Your task to perform on an android device: turn on sleep mode Image 0: 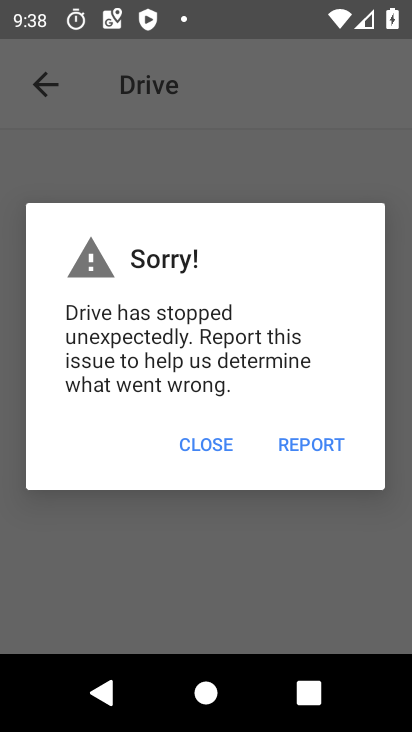
Step 0: press home button
Your task to perform on an android device: turn on sleep mode Image 1: 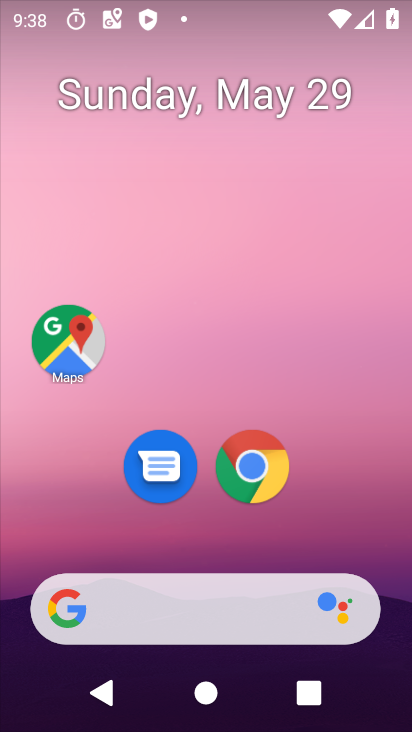
Step 1: drag from (187, 546) to (197, 178)
Your task to perform on an android device: turn on sleep mode Image 2: 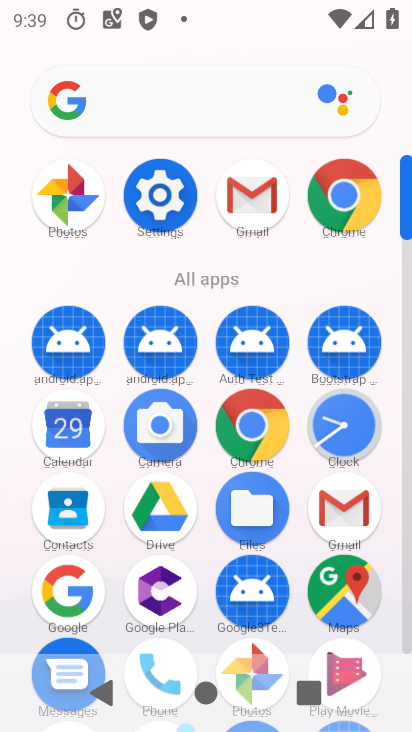
Step 2: click (161, 207)
Your task to perform on an android device: turn on sleep mode Image 3: 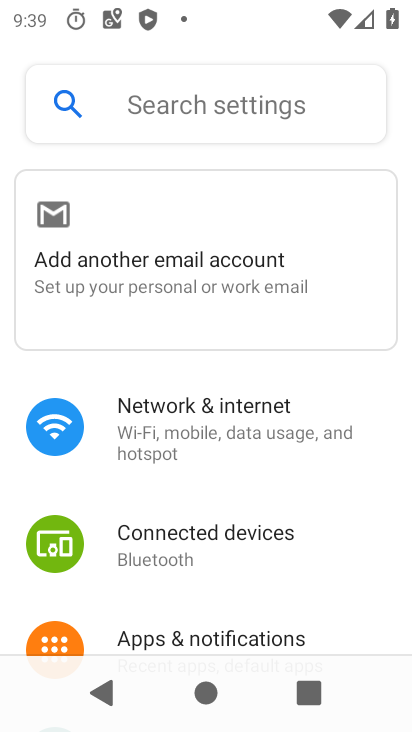
Step 3: drag from (223, 544) to (224, 280)
Your task to perform on an android device: turn on sleep mode Image 4: 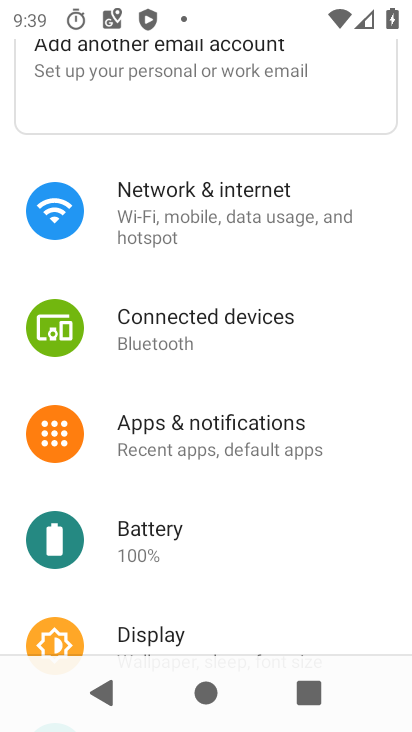
Step 4: click (229, 249)
Your task to perform on an android device: turn on sleep mode Image 5: 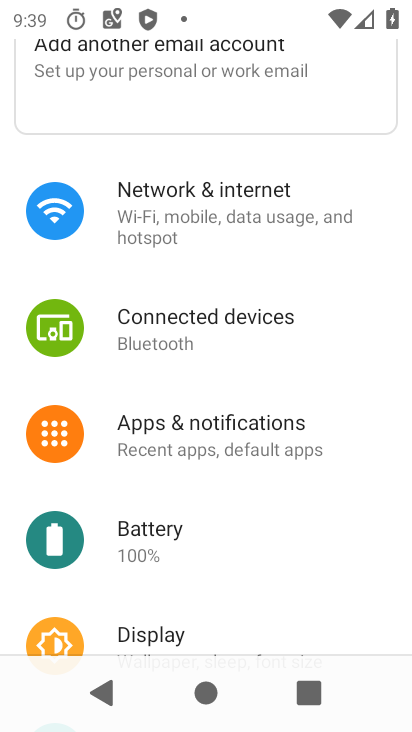
Step 5: drag from (202, 567) to (218, 362)
Your task to perform on an android device: turn on sleep mode Image 6: 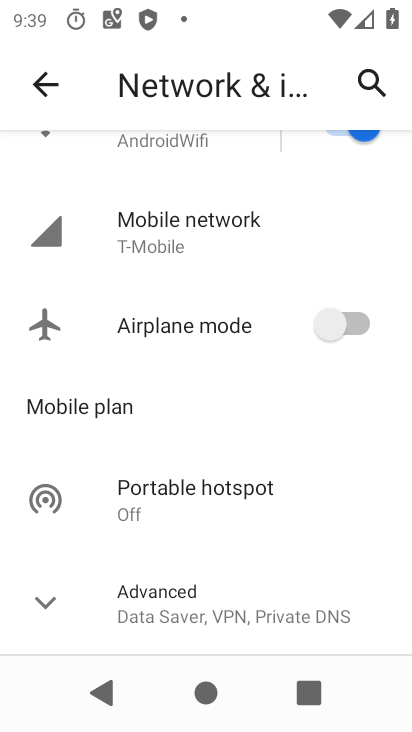
Step 6: click (215, 567)
Your task to perform on an android device: turn on sleep mode Image 7: 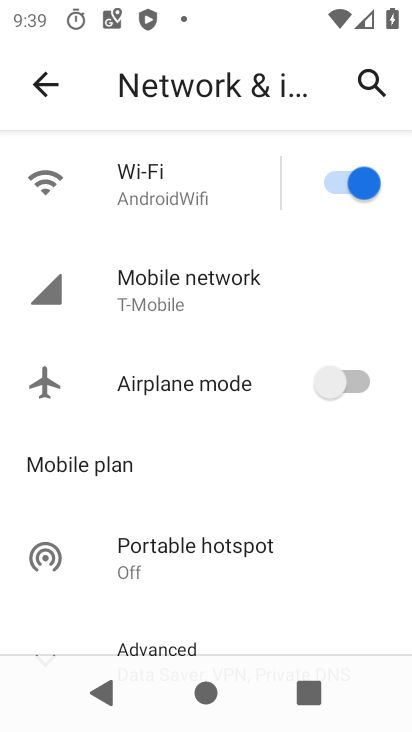
Step 7: click (27, 92)
Your task to perform on an android device: turn on sleep mode Image 8: 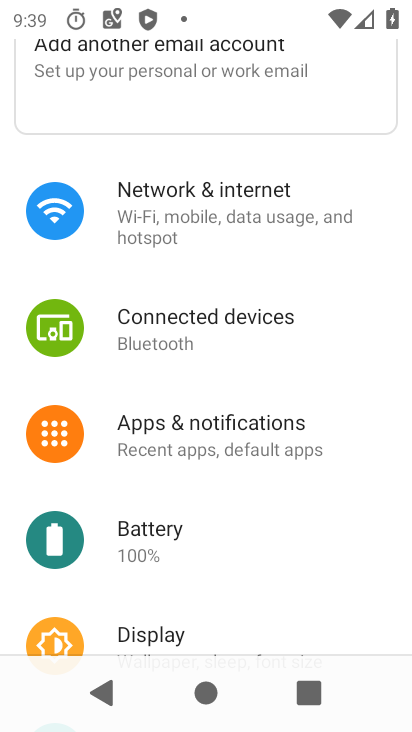
Step 8: drag from (214, 597) to (214, 361)
Your task to perform on an android device: turn on sleep mode Image 9: 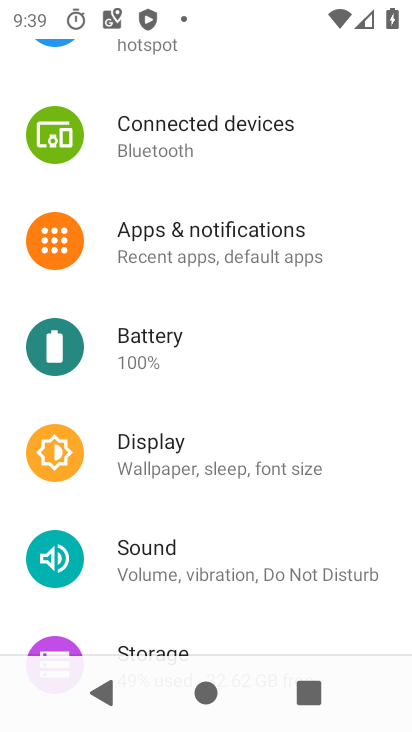
Step 9: click (210, 460)
Your task to perform on an android device: turn on sleep mode Image 10: 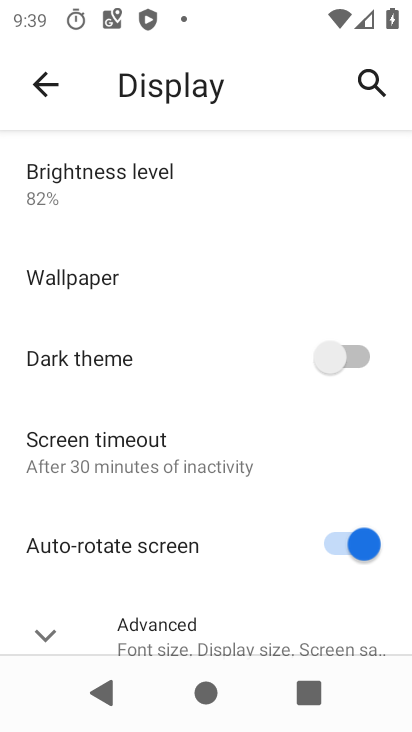
Step 10: click (188, 460)
Your task to perform on an android device: turn on sleep mode Image 11: 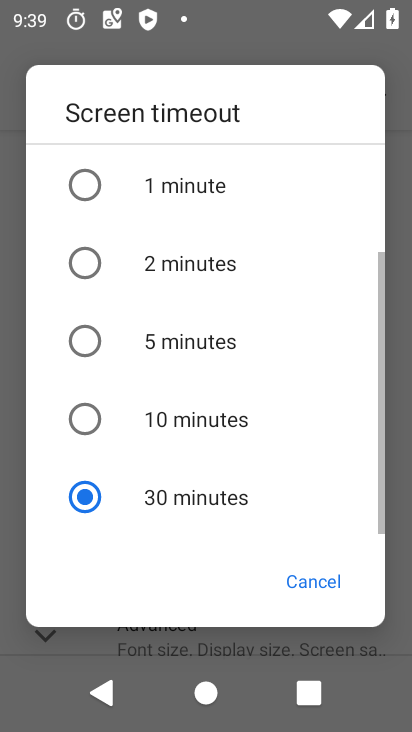
Step 11: click (178, 338)
Your task to perform on an android device: turn on sleep mode Image 12: 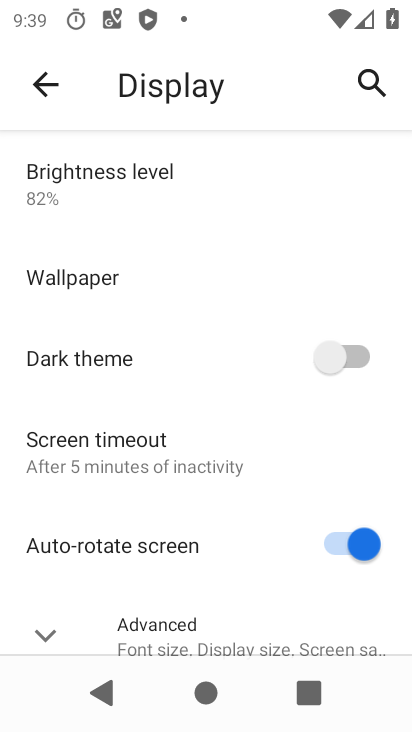
Step 12: task complete